Your task to perform on an android device: read, delete, or share a saved page in the chrome app Image 0: 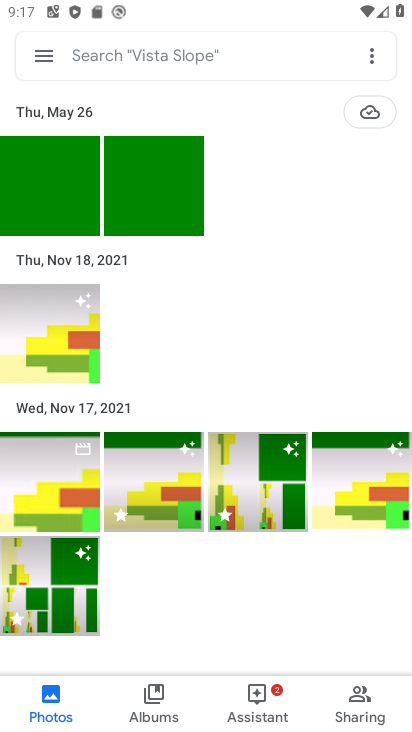
Step 0: press home button
Your task to perform on an android device: read, delete, or share a saved page in the chrome app Image 1: 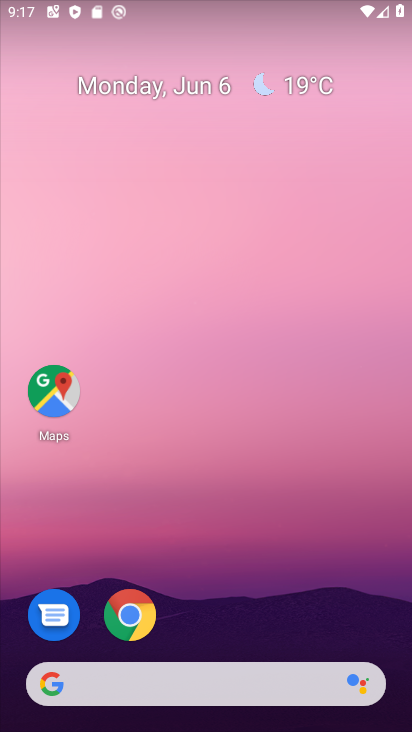
Step 1: click (120, 597)
Your task to perform on an android device: read, delete, or share a saved page in the chrome app Image 2: 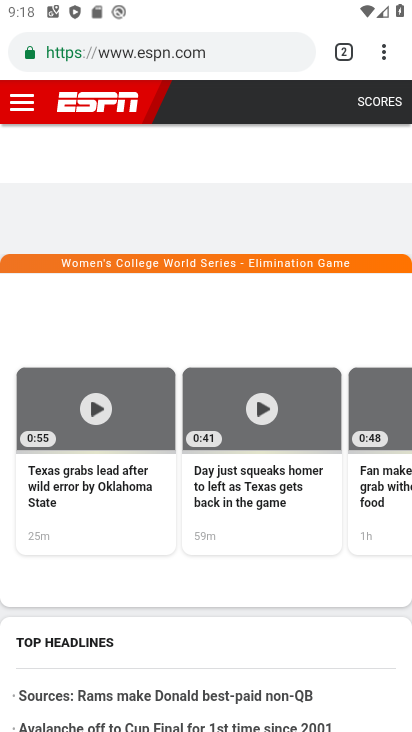
Step 2: click (383, 48)
Your task to perform on an android device: read, delete, or share a saved page in the chrome app Image 3: 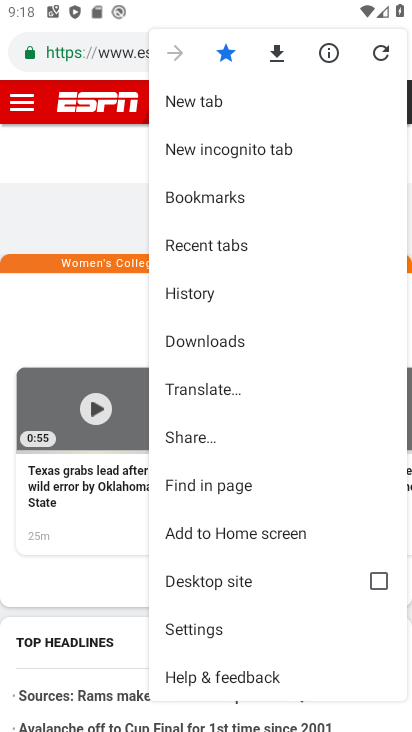
Step 3: click (207, 341)
Your task to perform on an android device: read, delete, or share a saved page in the chrome app Image 4: 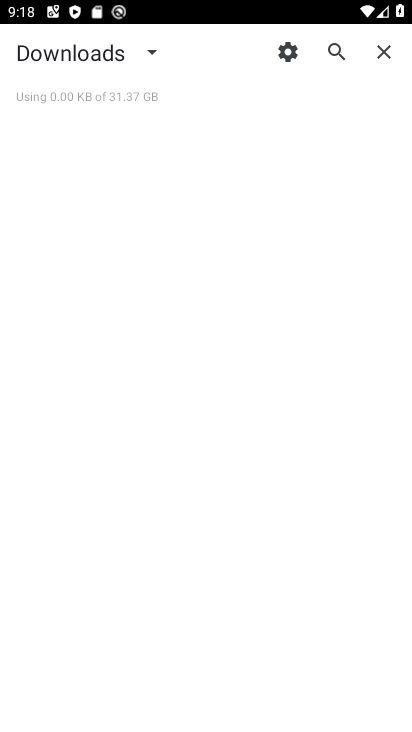
Step 4: task complete